Your task to perform on an android device: set an alarm Image 0: 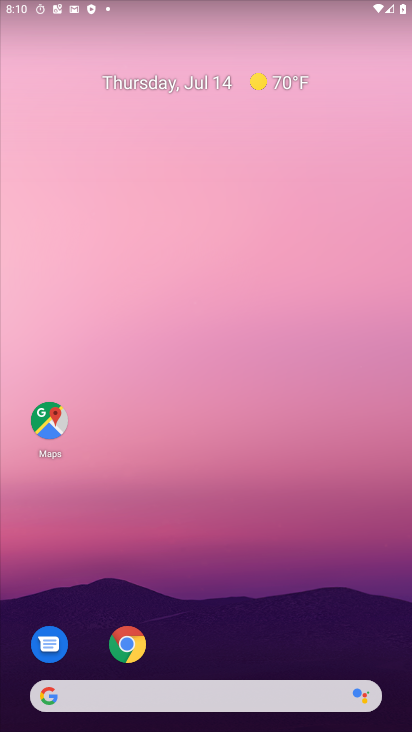
Step 0: drag from (223, 697) to (345, 144)
Your task to perform on an android device: set an alarm Image 1: 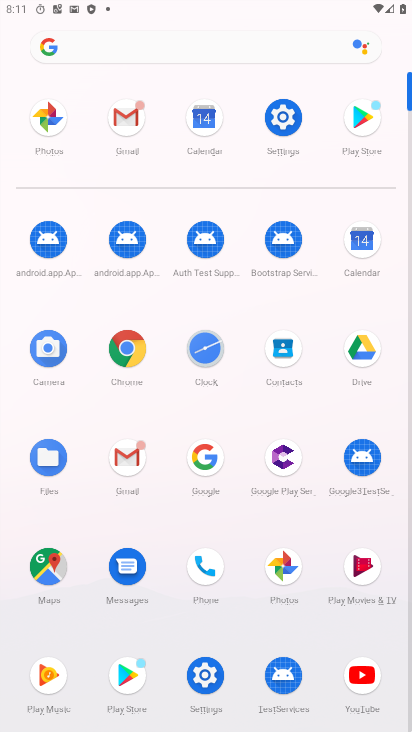
Step 1: click (213, 351)
Your task to perform on an android device: set an alarm Image 2: 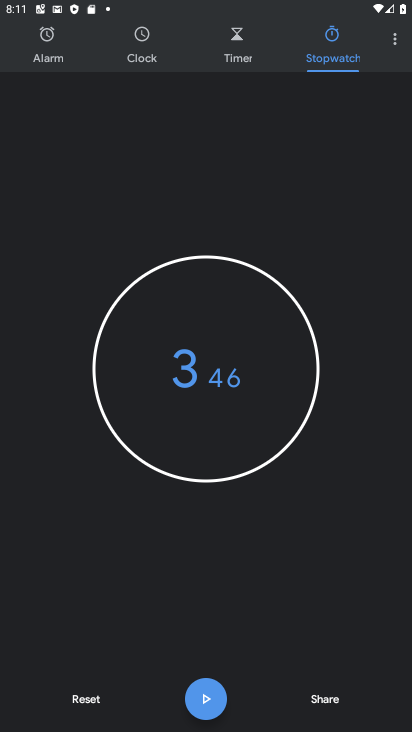
Step 2: click (44, 41)
Your task to perform on an android device: set an alarm Image 3: 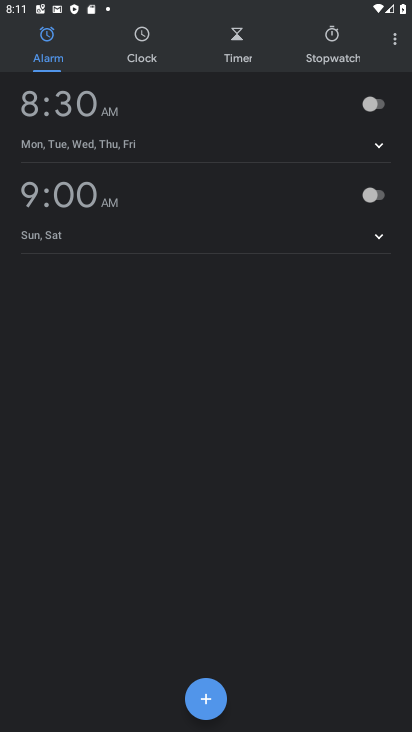
Step 3: click (376, 102)
Your task to perform on an android device: set an alarm Image 4: 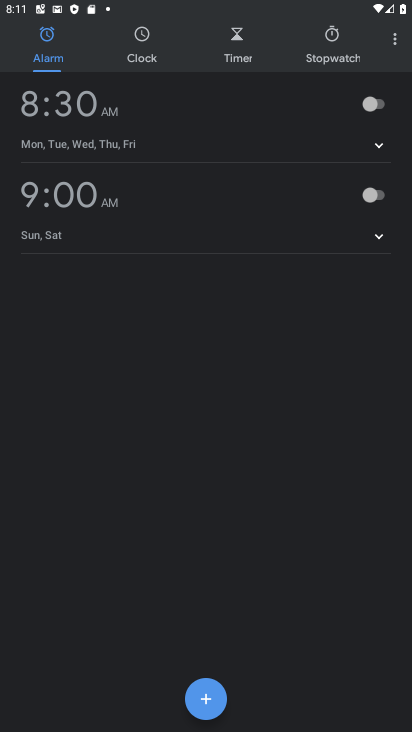
Step 4: click (382, 103)
Your task to perform on an android device: set an alarm Image 5: 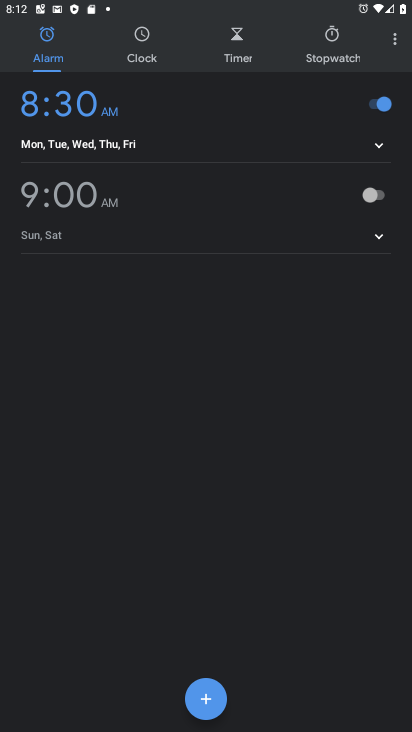
Step 5: task complete